Your task to perform on an android device: set the timer Image 0: 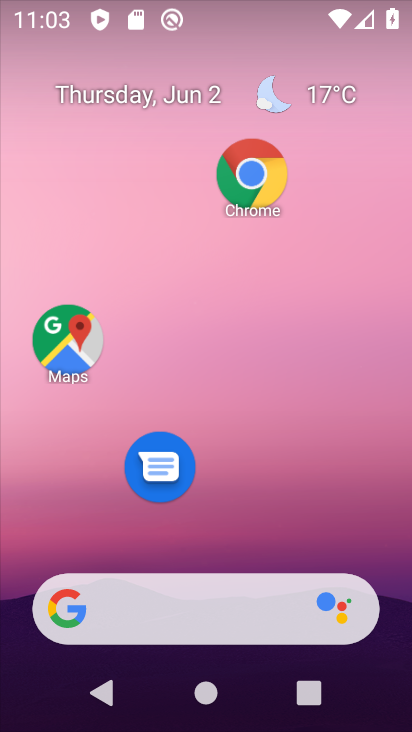
Step 0: press home button
Your task to perform on an android device: set the timer Image 1: 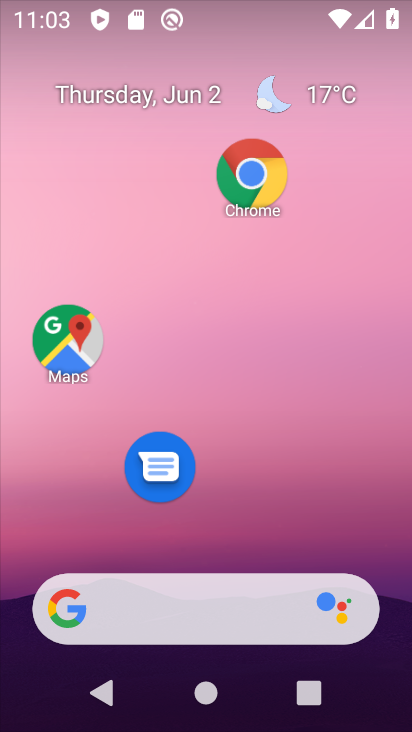
Step 1: drag from (299, 563) to (365, 0)
Your task to perform on an android device: set the timer Image 2: 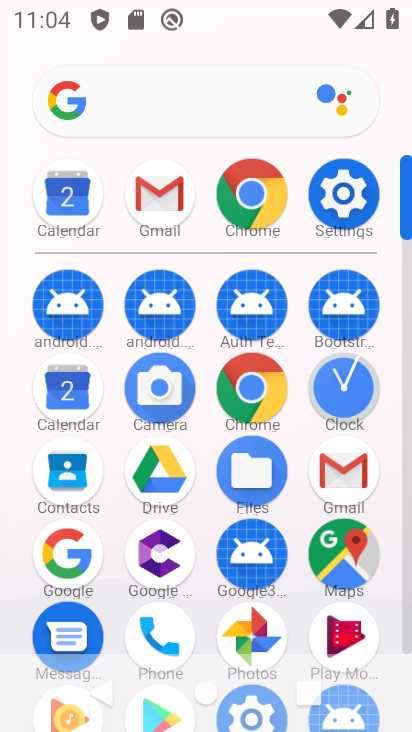
Step 2: click (354, 399)
Your task to perform on an android device: set the timer Image 3: 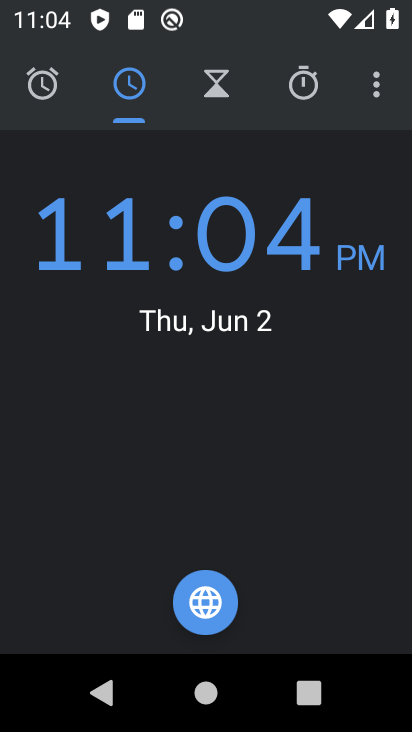
Step 3: click (218, 85)
Your task to perform on an android device: set the timer Image 4: 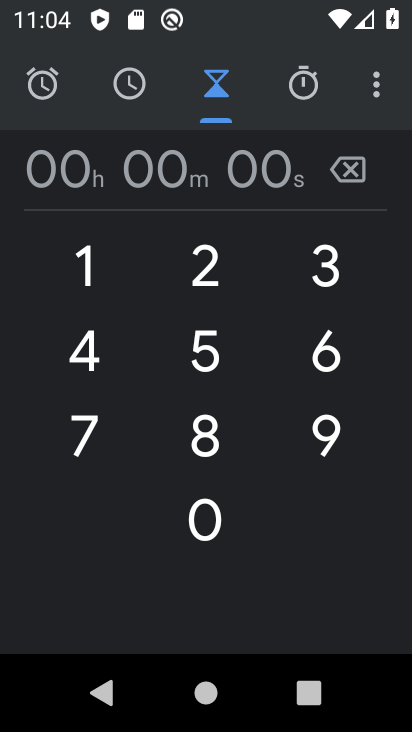
Step 4: click (79, 242)
Your task to perform on an android device: set the timer Image 5: 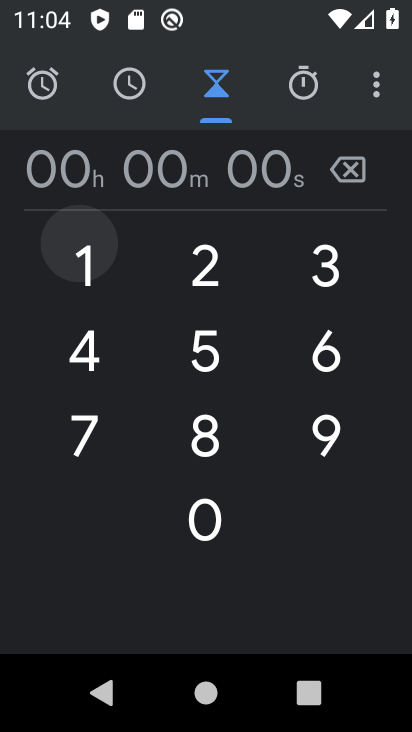
Step 5: click (79, 242)
Your task to perform on an android device: set the timer Image 6: 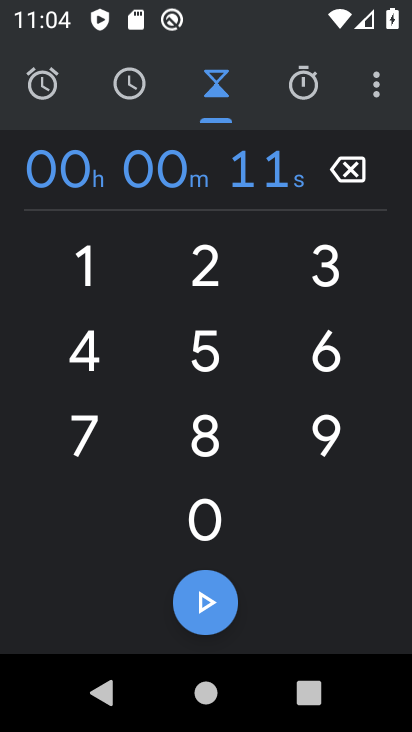
Step 6: click (213, 351)
Your task to perform on an android device: set the timer Image 7: 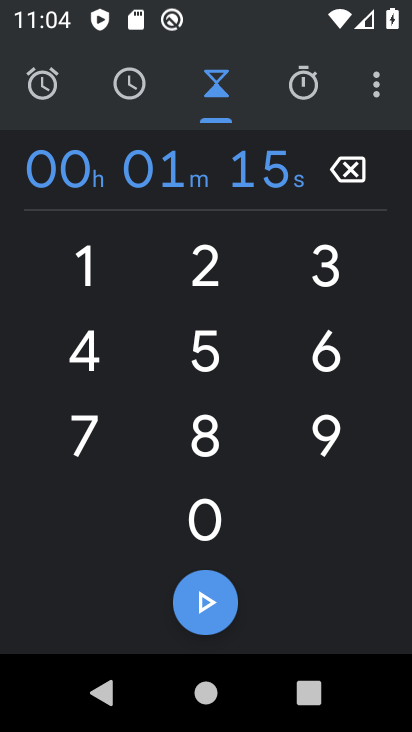
Step 7: click (68, 265)
Your task to perform on an android device: set the timer Image 8: 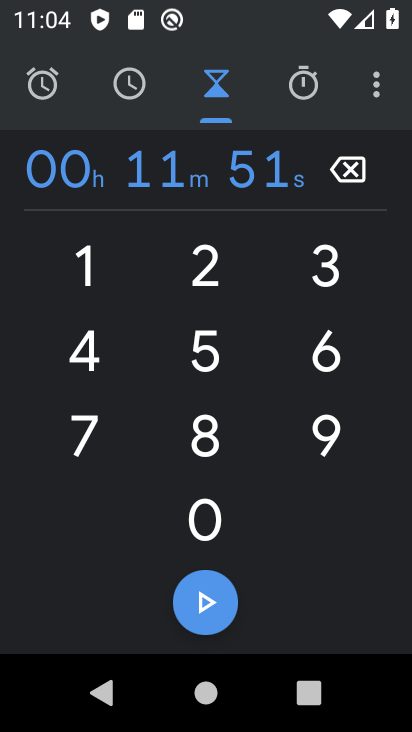
Step 8: click (206, 252)
Your task to perform on an android device: set the timer Image 9: 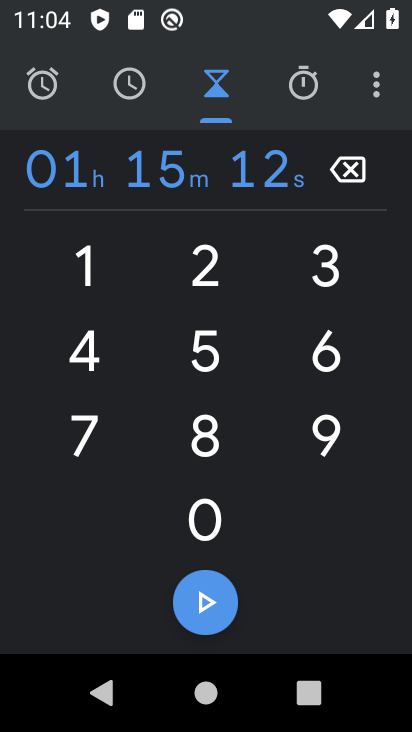
Step 9: task complete